Your task to perform on an android device: Open display settings Image 0: 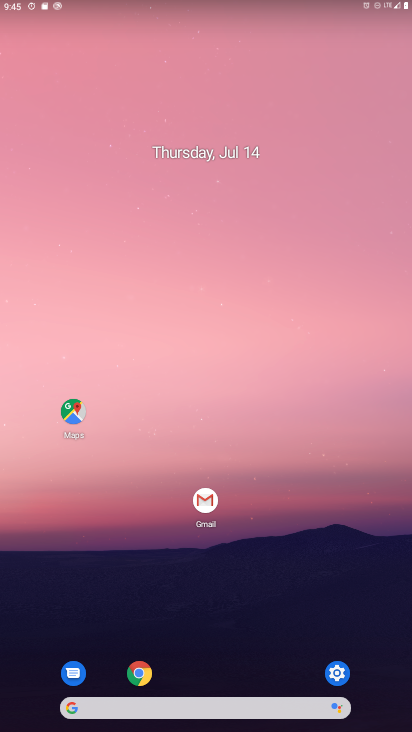
Step 0: press home button
Your task to perform on an android device: Open display settings Image 1: 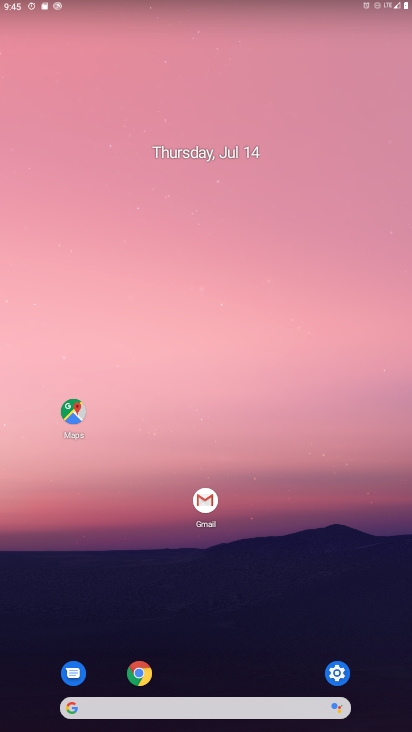
Step 1: click (331, 663)
Your task to perform on an android device: Open display settings Image 2: 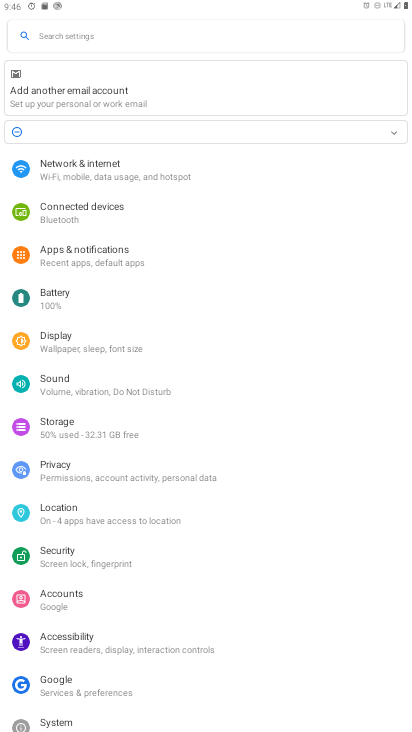
Step 2: click (96, 338)
Your task to perform on an android device: Open display settings Image 3: 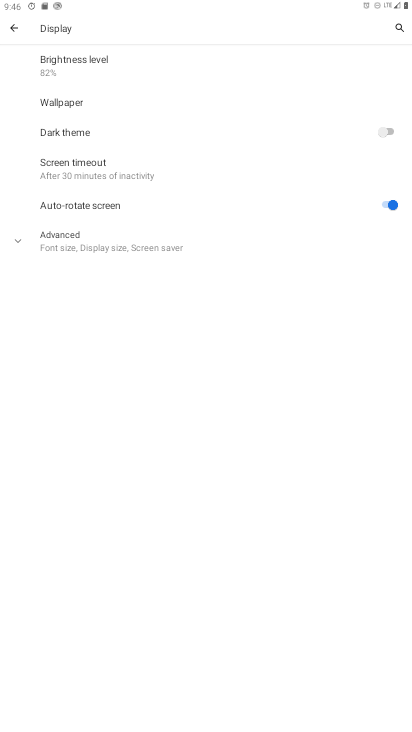
Step 3: task complete